Your task to perform on an android device: check out phone information Image 0: 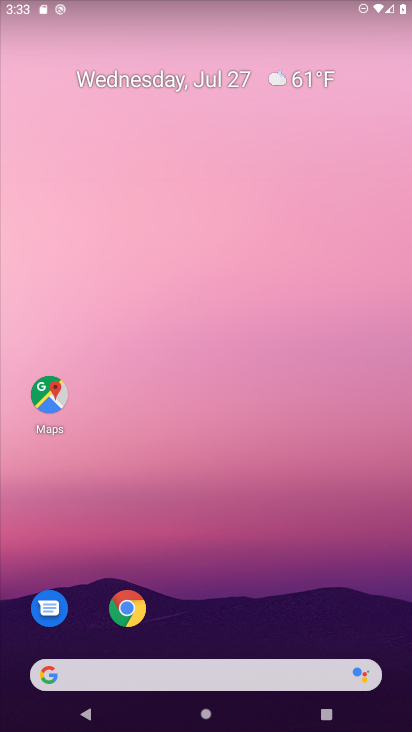
Step 0: drag from (230, 718) to (187, 237)
Your task to perform on an android device: check out phone information Image 1: 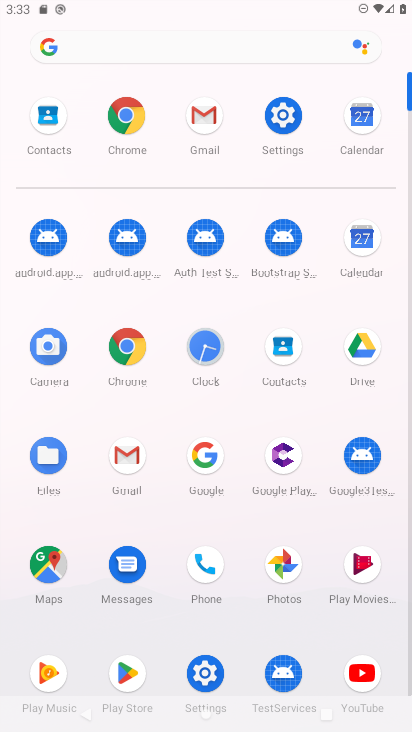
Step 1: click (278, 123)
Your task to perform on an android device: check out phone information Image 2: 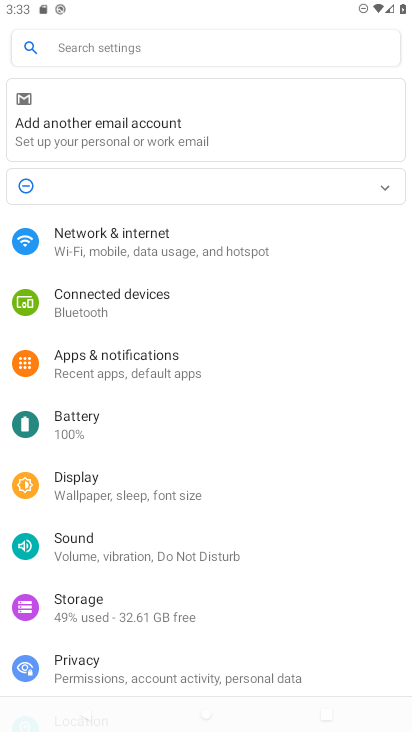
Step 2: drag from (154, 649) to (136, 380)
Your task to perform on an android device: check out phone information Image 3: 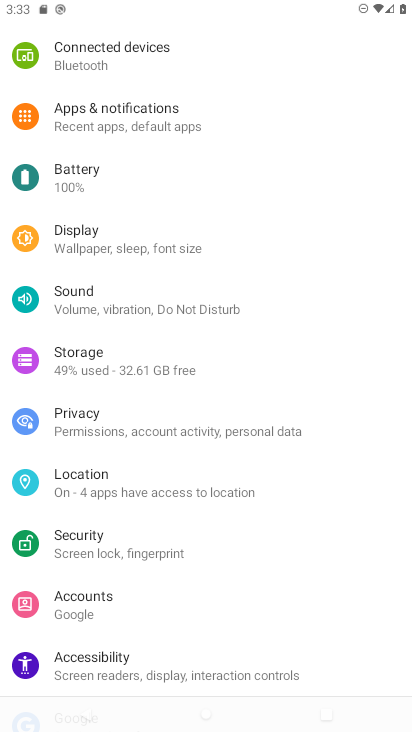
Step 3: drag from (105, 651) to (136, 145)
Your task to perform on an android device: check out phone information Image 4: 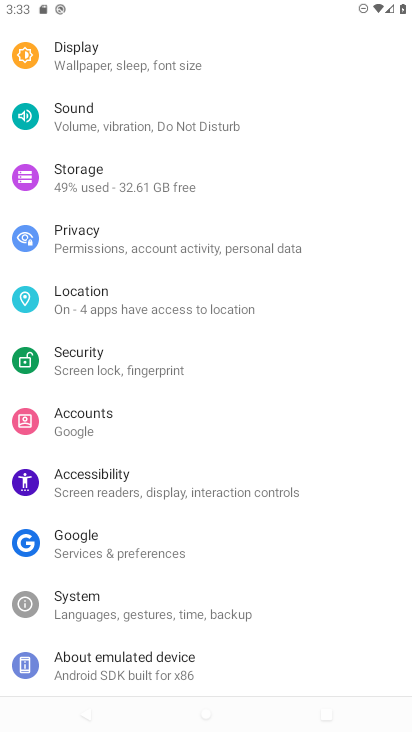
Step 4: click (106, 656)
Your task to perform on an android device: check out phone information Image 5: 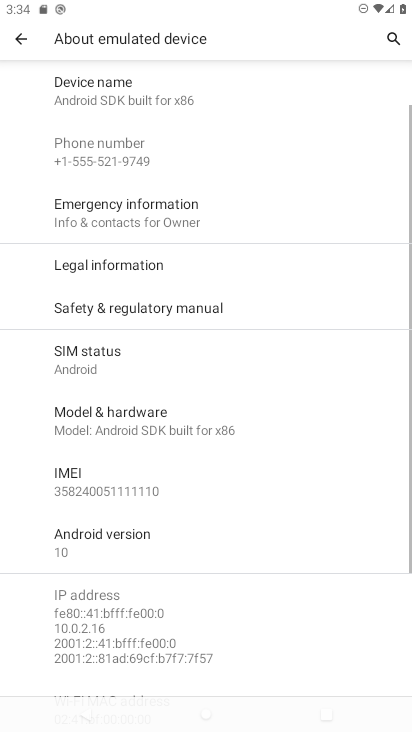
Step 5: task complete